Your task to perform on an android device: Show me productivity apps on the Play Store Image 0: 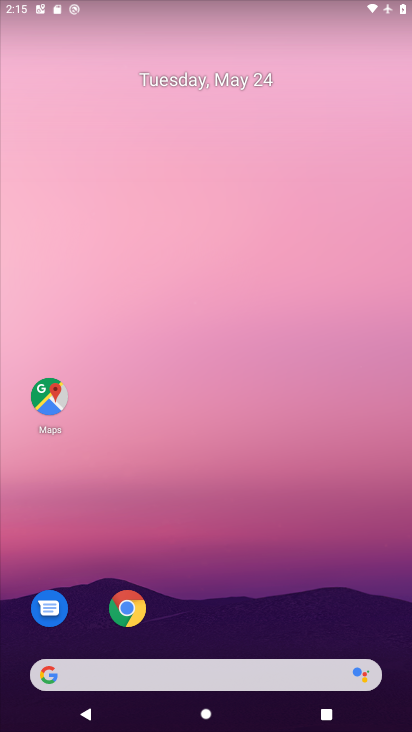
Step 0: drag from (313, 602) to (250, 91)
Your task to perform on an android device: Show me productivity apps on the Play Store Image 1: 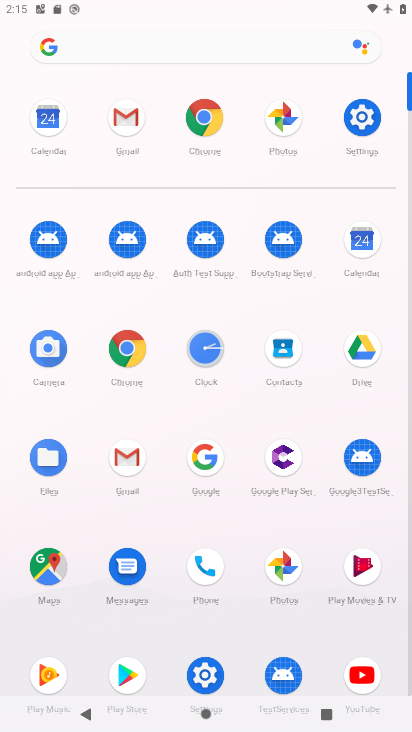
Step 1: click (133, 677)
Your task to perform on an android device: Show me productivity apps on the Play Store Image 2: 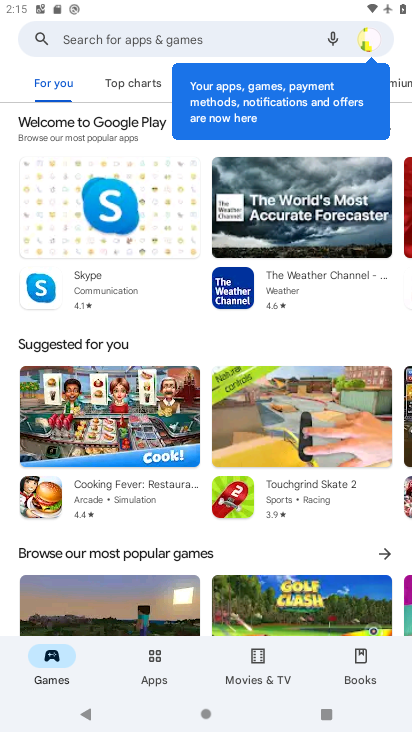
Step 2: click (148, 674)
Your task to perform on an android device: Show me productivity apps on the Play Store Image 3: 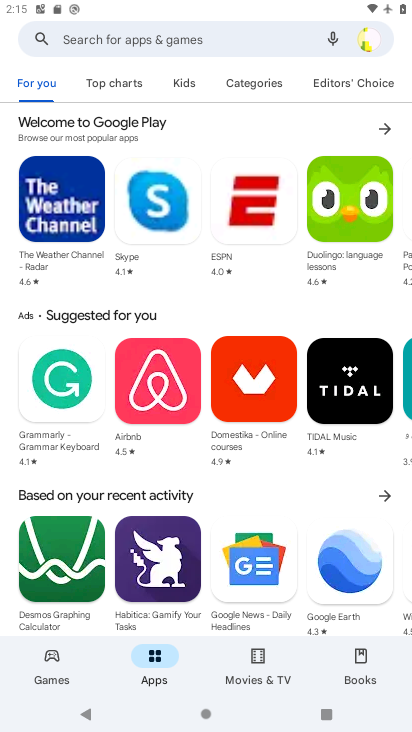
Step 3: click (88, 89)
Your task to perform on an android device: Show me productivity apps on the Play Store Image 4: 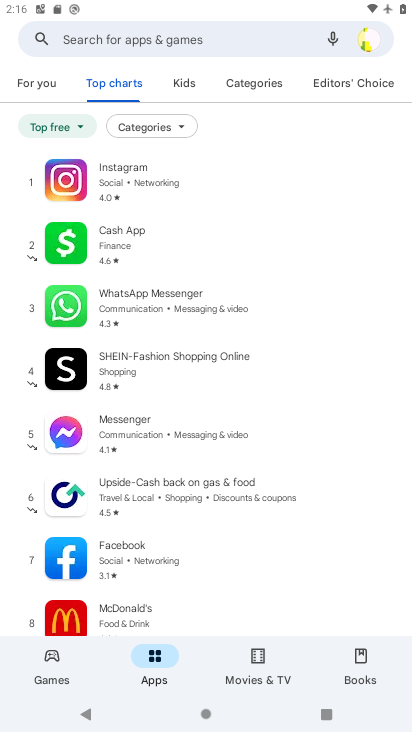
Step 4: task complete